Your task to perform on an android device: change notifications settings Image 0: 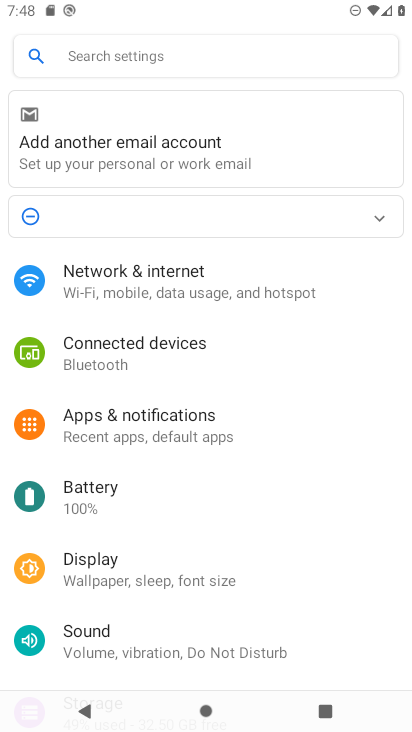
Step 0: click (163, 424)
Your task to perform on an android device: change notifications settings Image 1: 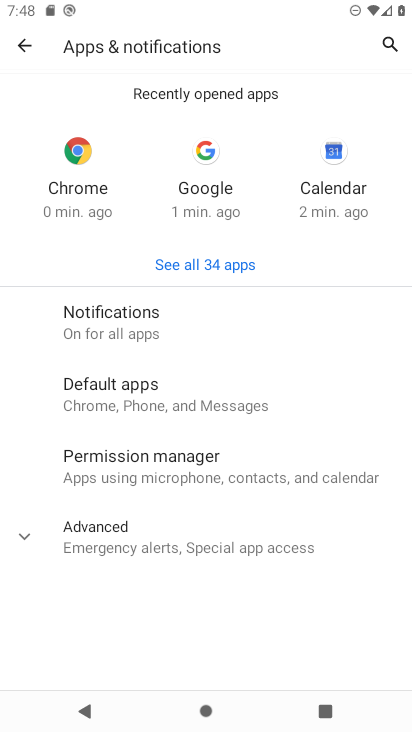
Step 1: click (123, 321)
Your task to perform on an android device: change notifications settings Image 2: 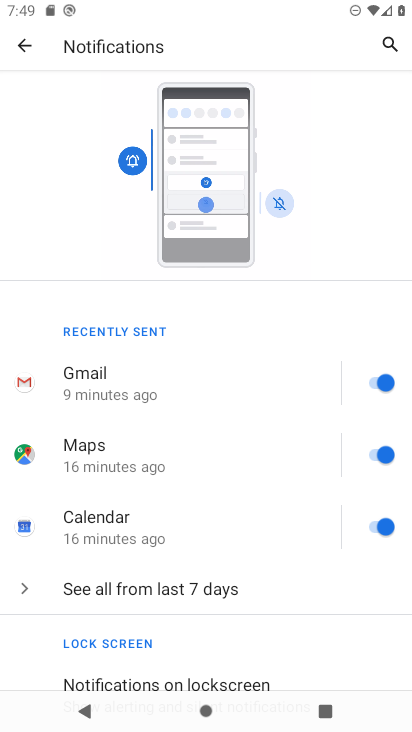
Step 2: click (375, 375)
Your task to perform on an android device: change notifications settings Image 3: 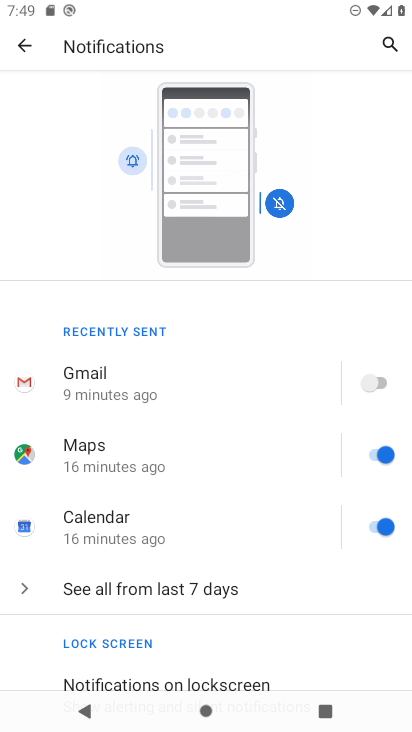
Step 3: click (374, 450)
Your task to perform on an android device: change notifications settings Image 4: 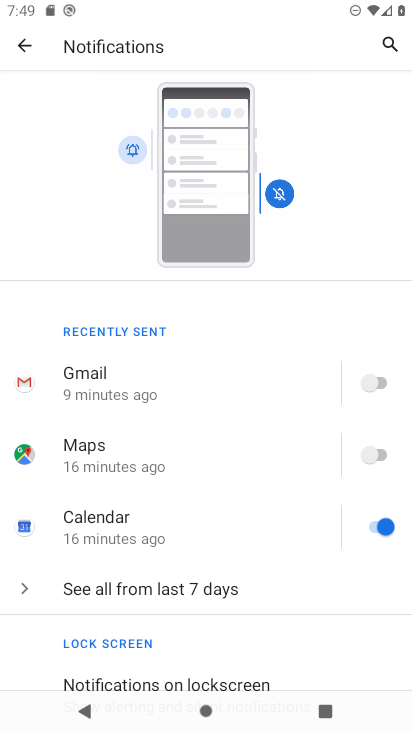
Step 4: click (379, 525)
Your task to perform on an android device: change notifications settings Image 5: 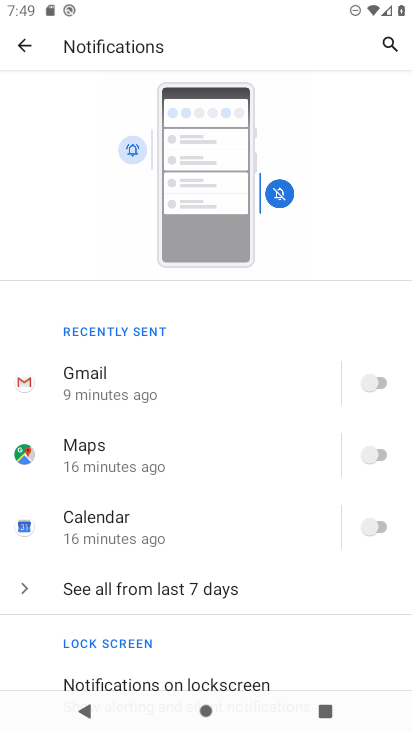
Step 5: drag from (302, 596) to (324, 213)
Your task to perform on an android device: change notifications settings Image 6: 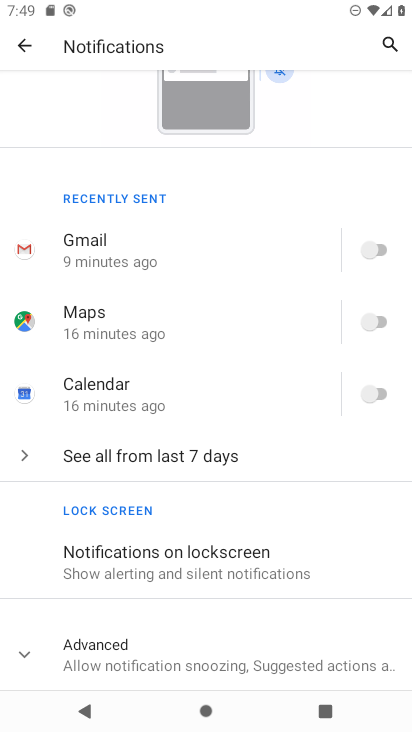
Step 6: click (10, 648)
Your task to perform on an android device: change notifications settings Image 7: 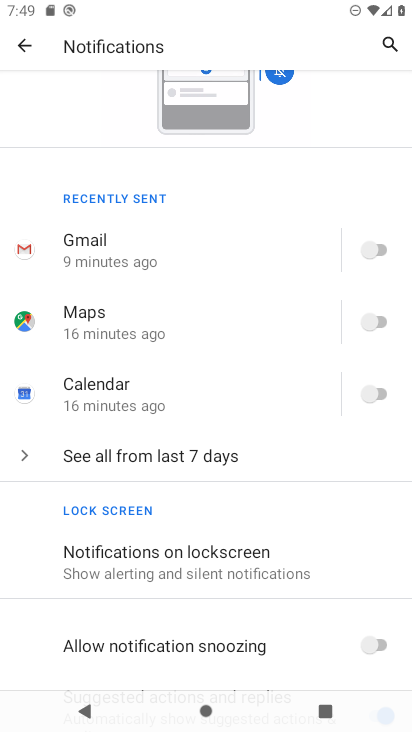
Step 7: drag from (280, 612) to (336, 180)
Your task to perform on an android device: change notifications settings Image 8: 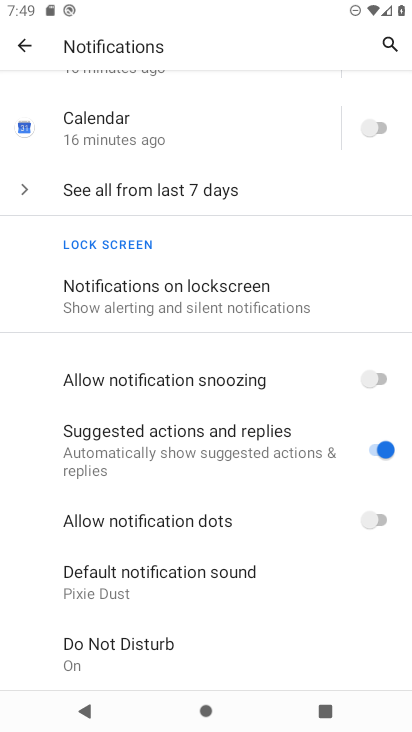
Step 8: click (377, 449)
Your task to perform on an android device: change notifications settings Image 9: 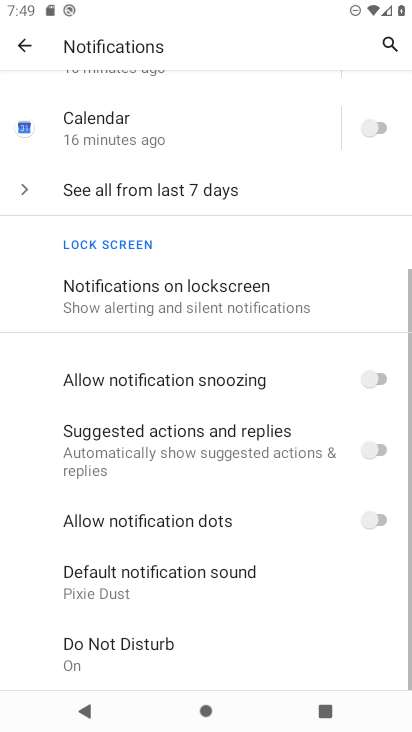
Step 9: click (160, 595)
Your task to perform on an android device: change notifications settings Image 10: 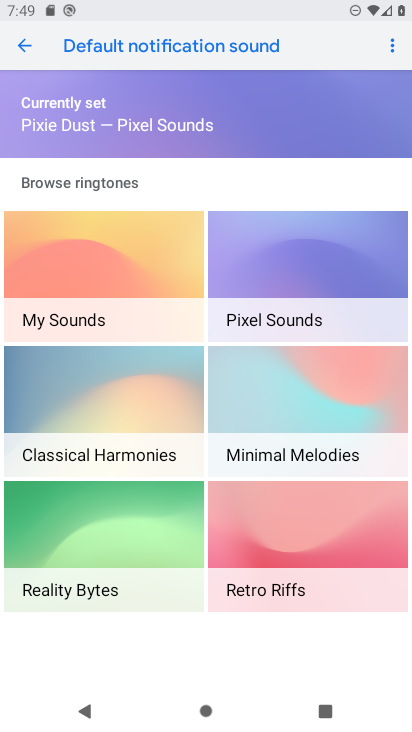
Step 10: task complete